Your task to perform on an android device: turn off notifications settings in the gmail app Image 0: 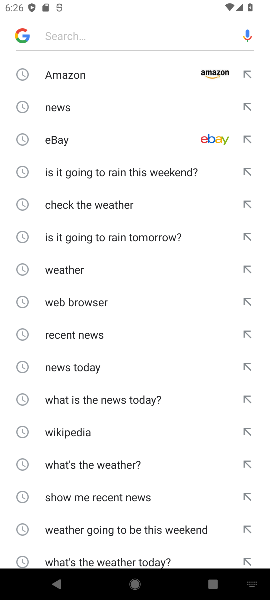
Step 0: press home button
Your task to perform on an android device: turn off notifications settings in the gmail app Image 1: 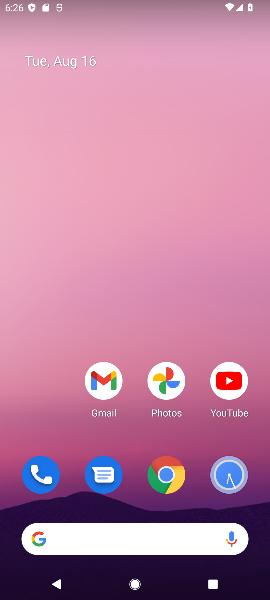
Step 1: drag from (221, 504) to (124, 10)
Your task to perform on an android device: turn off notifications settings in the gmail app Image 2: 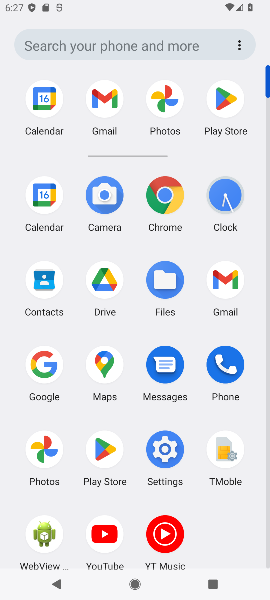
Step 2: click (219, 284)
Your task to perform on an android device: turn off notifications settings in the gmail app Image 3: 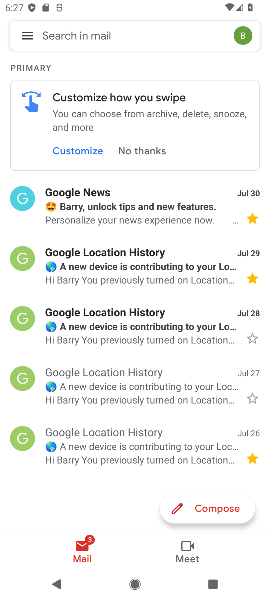
Step 3: task complete